Your task to perform on an android device: open the mobile data screen to see how much data has been used Image 0: 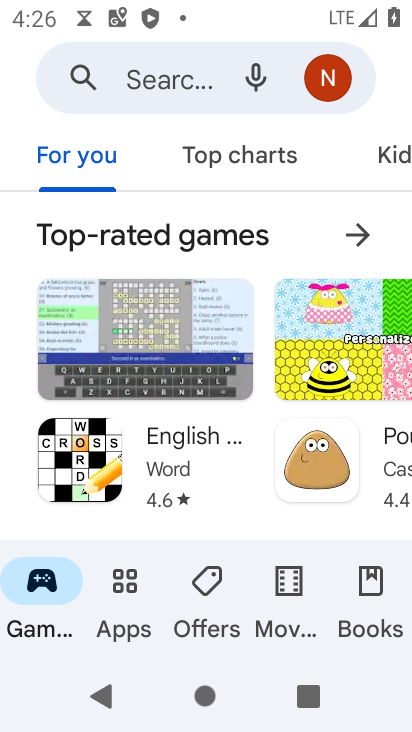
Step 0: press back button
Your task to perform on an android device: open the mobile data screen to see how much data has been used Image 1: 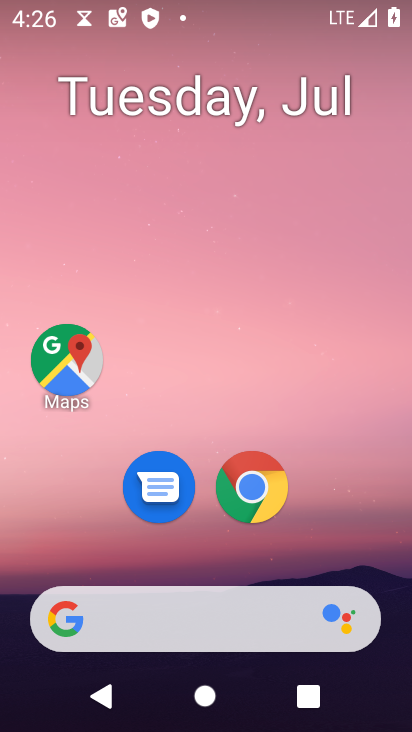
Step 1: drag from (251, 461) to (278, 0)
Your task to perform on an android device: open the mobile data screen to see how much data has been used Image 2: 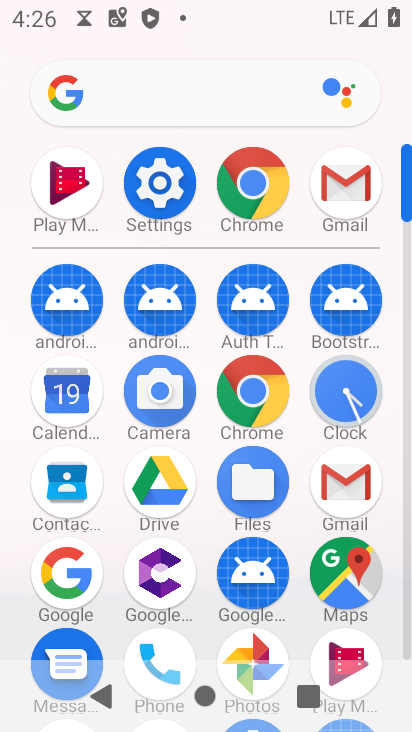
Step 2: click (159, 161)
Your task to perform on an android device: open the mobile data screen to see how much data has been used Image 3: 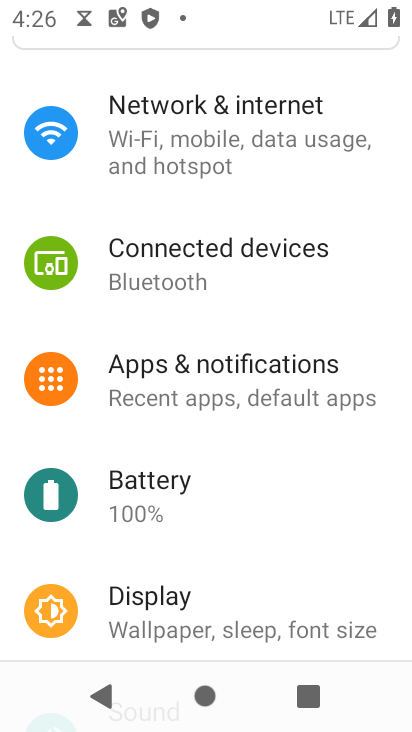
Step 3: drag from (181, 213) to (172, 680)
Your task to perform on an android device: open the mobile data screen to see how much data has been used Image 4: 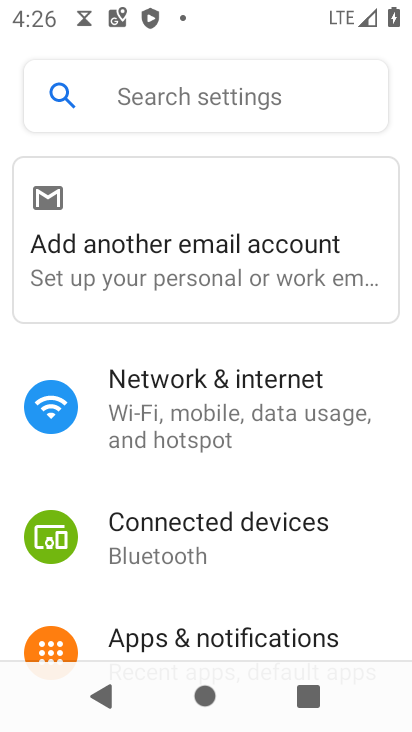
Step 4: click (179, 411)
Your task to perform on an android device: open the mobile data screen to see how much data has been used Image 5: 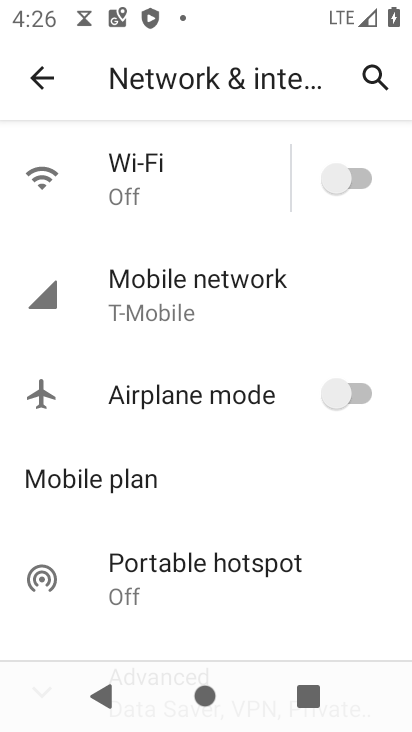
Step 5: click (160, 296)
Your task to perform on an android device: open the mobile data screen to see how much data has been used Image 6: 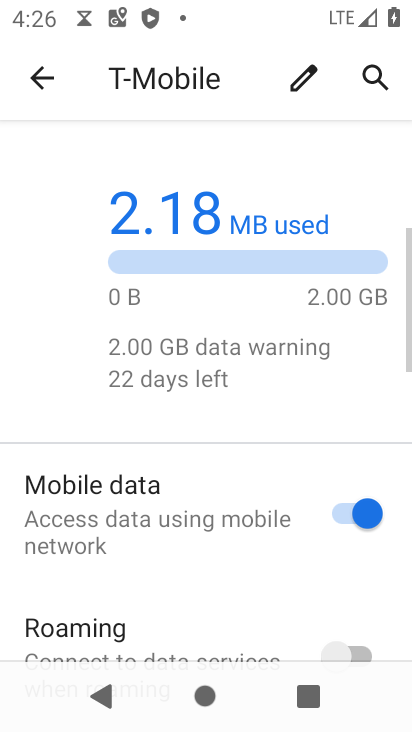
Step 6: drag from (134, 588) to (214, 12)
Your task to perform on an android device: open the mobile data screen to see how much data has been used Image 7: 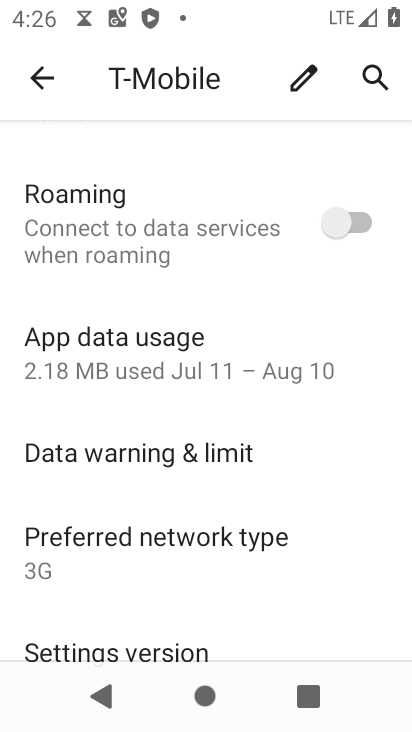
Step 7: click (132, 357)
Your task to perform on an android device: open the mobile data screen to see how much data has been used Image 8: 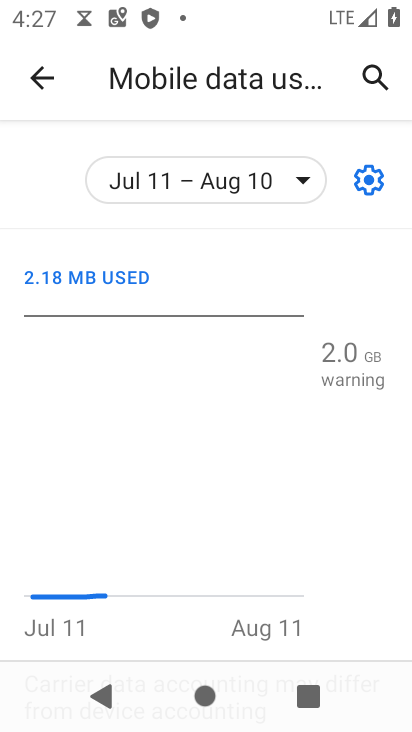
Step 8: task complete